Your task to perform on an android device: Set the phone to "Do not disturb". Image 0: 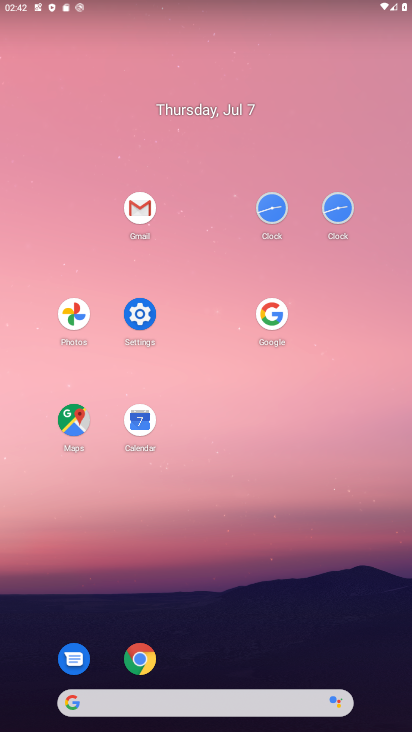
Step 0: click (129, 315)
Your task to perform on an android device: Set the phone to "Do not disturb". Image 1: 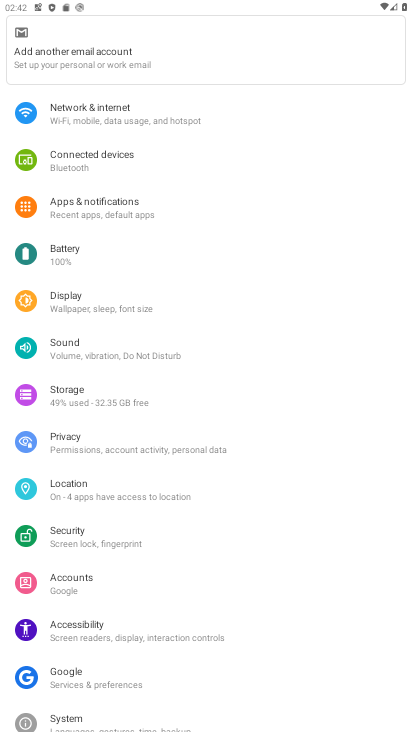
Step 1: click (112, 359)
Your task to perform on an android device: Set the phone to "Do not disturb". Image 2: 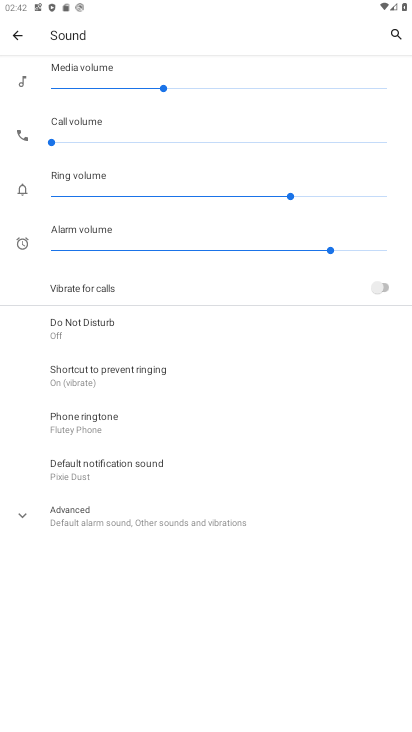
Step 2: click (115, 335)
Your task to perform on an android device: Set the phone to "Do not disturb". Image 3: 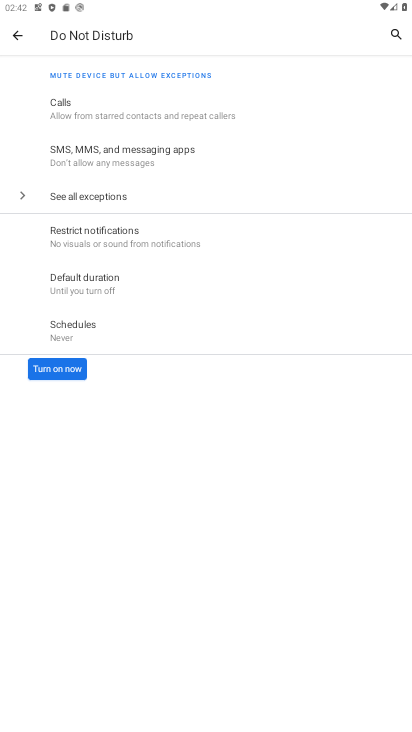
Step 3: click (73, 359)
Your task to perform on an android device: Set the phone to "Do not disturb". Image 4: 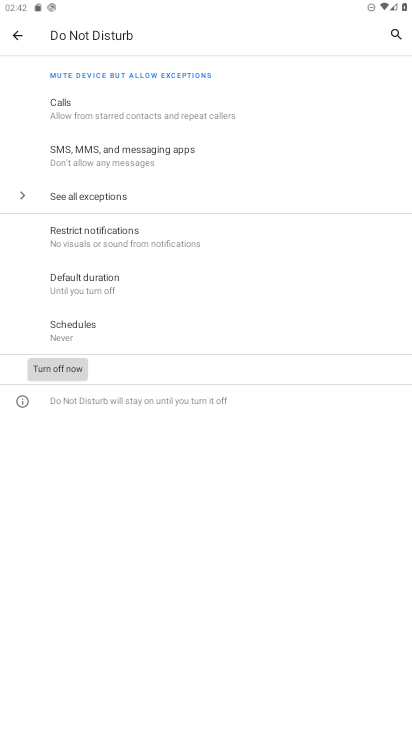
Step 4: task complete